Your task to perform on an android device: open device folders in google photos Image 0: 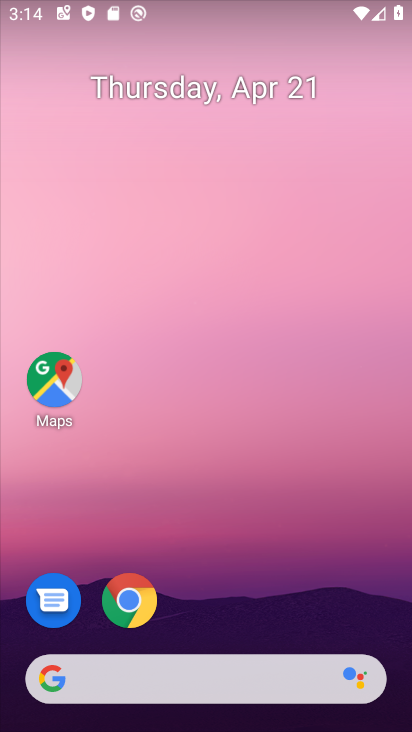
Step 0: drag from (230, 613) to (223, 0)
Your task to perform on an android device: open device folders in google photos Image 1: 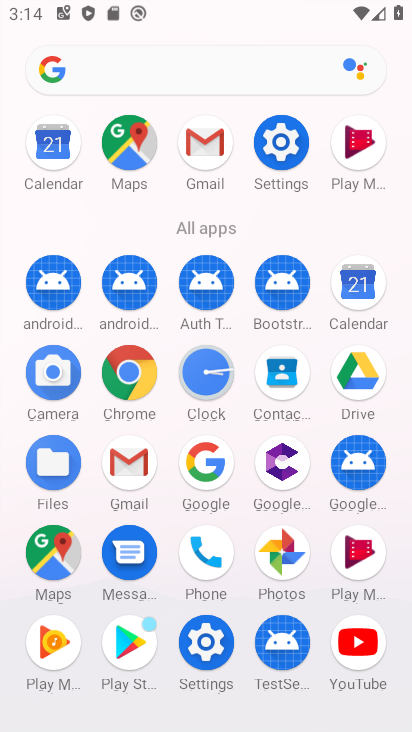
Step 1: click (284, 555)
Your task to perform on an android device: open device folders in google photos Image 2: 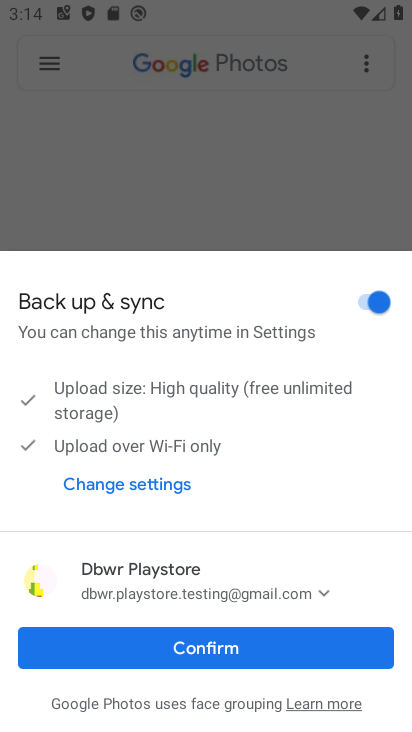
Step 2: click (211, 646)
Your task to perform on an android device: open device folders in google photos Image 3: 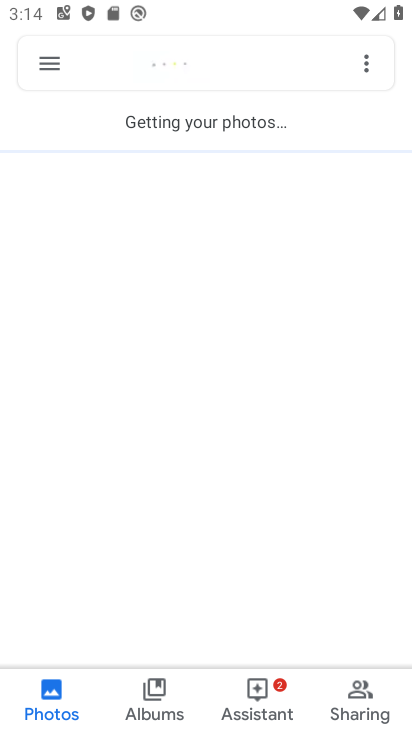
Step 3: click (53, 59)
Your task to perform on an android device: open device folders in google photos Image 4: 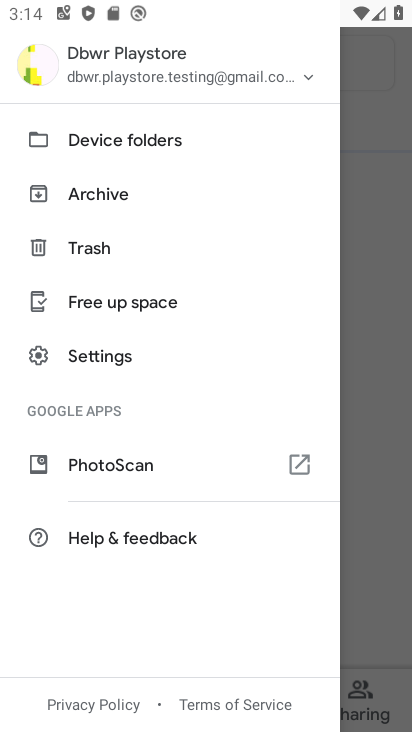
Step 4: click (108, 143)
Your task to perform on an android device: open device folders in google photos Image 5: 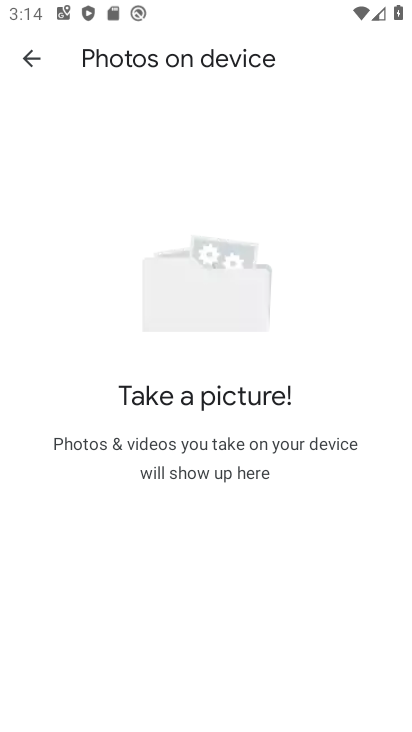
Step 5: task complete